Your task to perform on an android device: turn off location history Image 0: 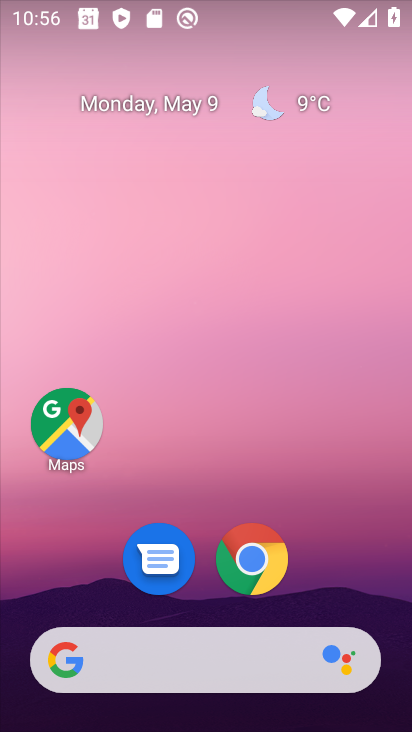
Step 0: drag from (385, 542) to (302, 152)
Your task to perform on an android device: turn off location history Image 1: 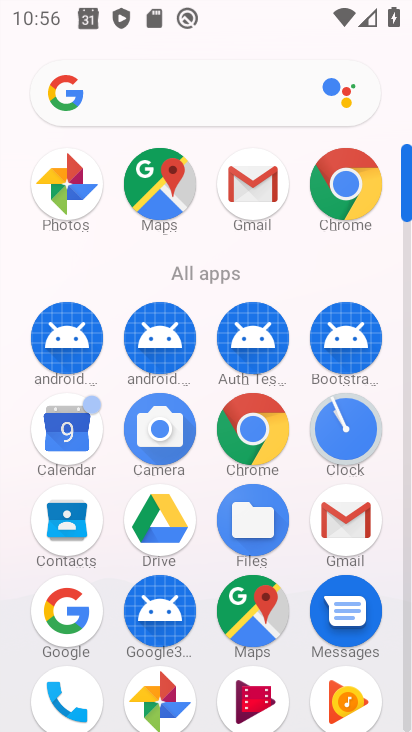
Step 1: drag from (398, 582) to (332, 187)
Your task to perform on an android device: turn off location history Image 2: 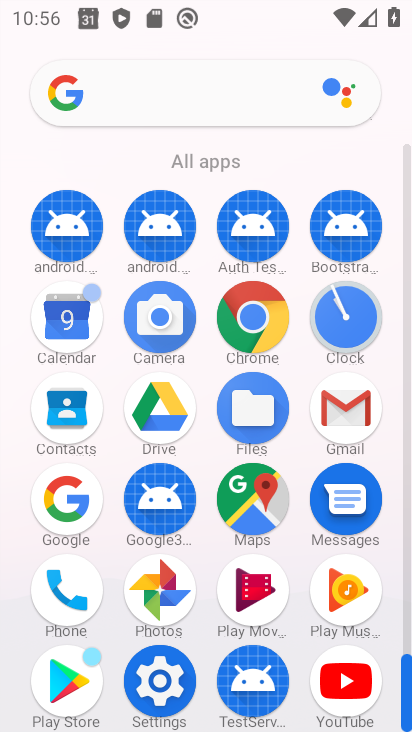
Step 2: click (157, 676)
Your task to perform on an android device: turn off location history Image 3: 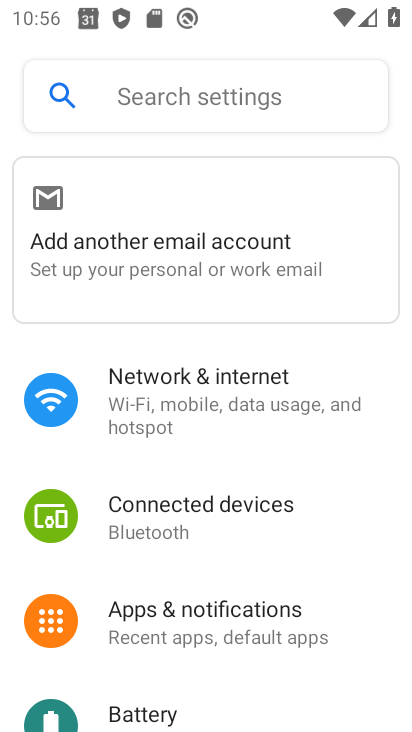
Step 3: drag from (313, 615) to (284, 228)
Your task to perform on an android device: turn off location history Image 4: 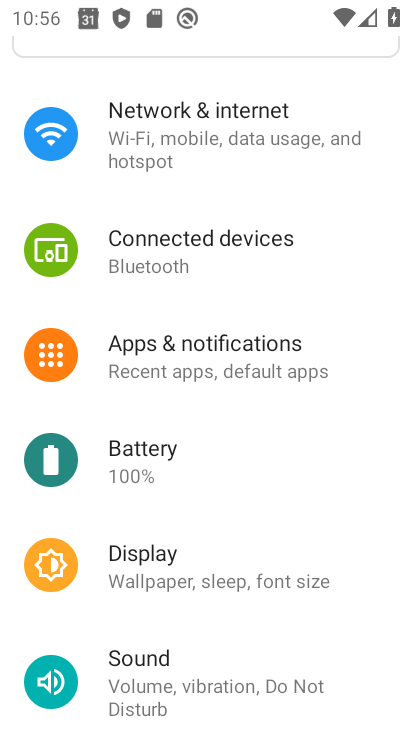
Step 4: drag from (211, 658) to (199, 190)
Your task to perform on an android device: turn off location history Image 5: 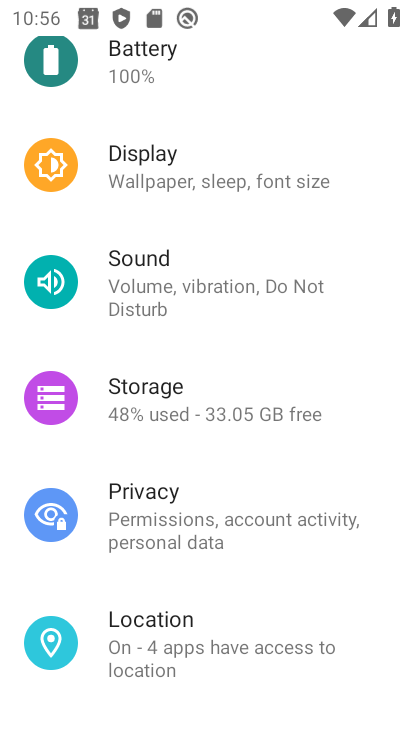
Step 5: click (189, 630)
Your task to perform on an android device: turn off location history Image 6: 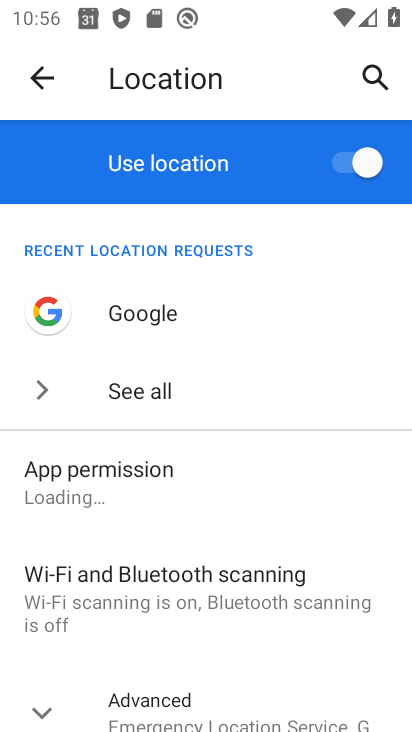
Step 6: drag from (273, 645) to (279, 216)
Your task to perform on an android device: turn off location history Image 7: 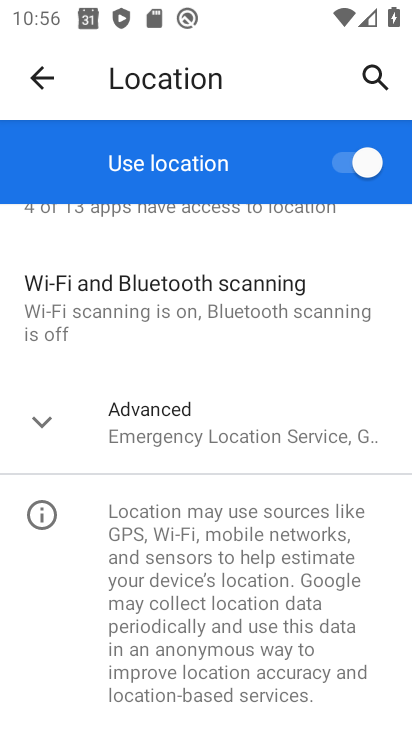
Step 7: drag from (189, 396) to (253, 725)
Your task to perform on an android device: turn off location history Image 8: 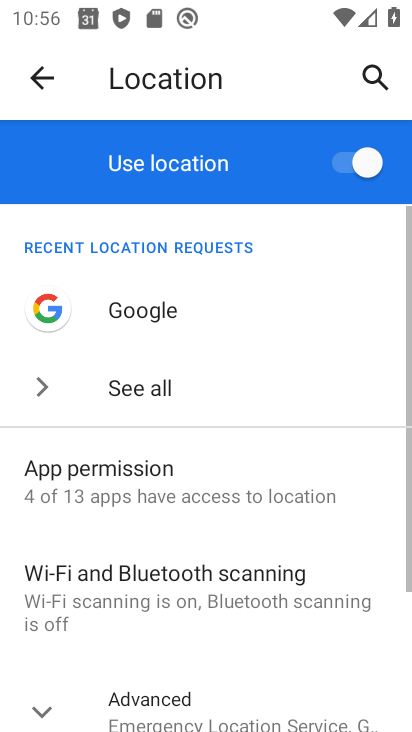
Step 8: drag from (195, 630) to (222, 227)
Your task to perform on an android device: turn off location history Image 9: 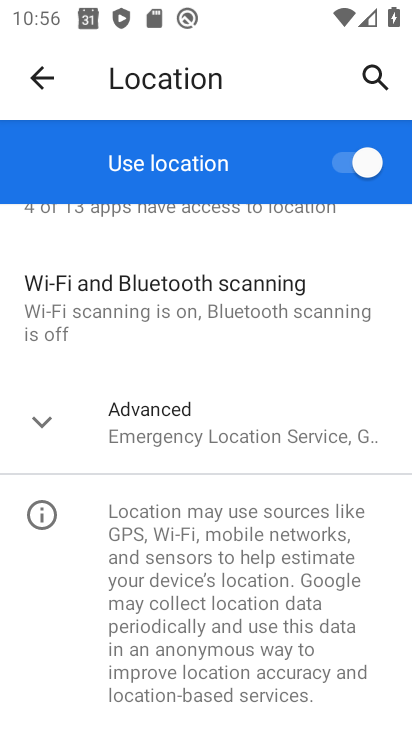
Step 9: drag from (205, 588) to (212, 322)
Your task to perform on an android device: turn off location history Image 10: 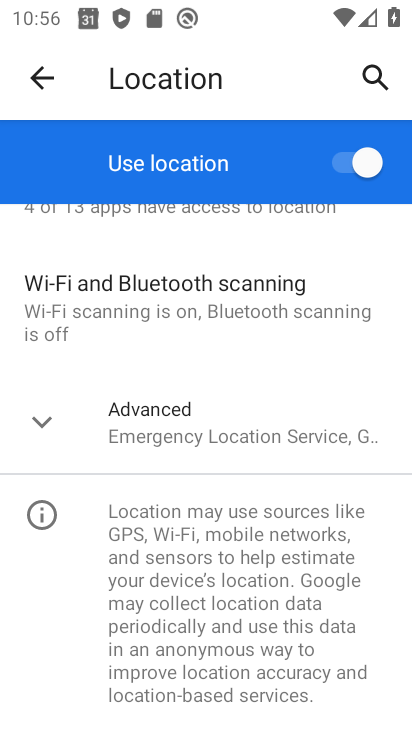
Step 10: click (198, 418)
Your task to perform on an android device: turn off location history Image 11: 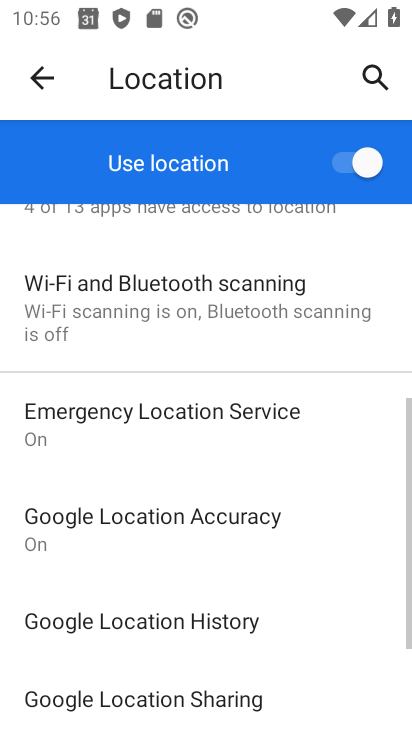
Step 11: drag from (175, 575) to (190, 301)
Your task to perform on an android device: turn off location history Image 12: 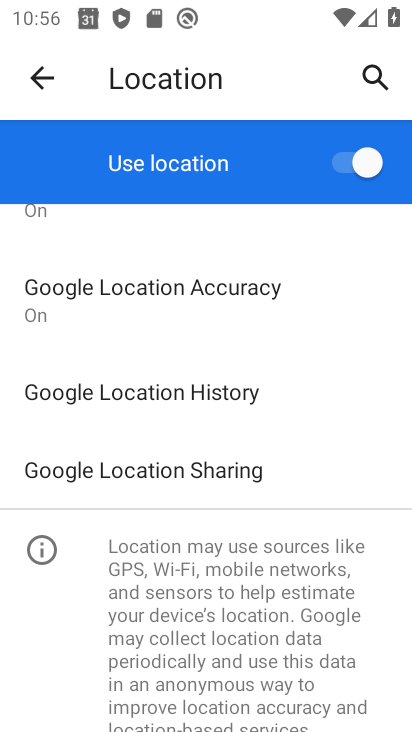
Step 12: click (166, 401)
Your task to perform on an android device: turn off location history Image 13: 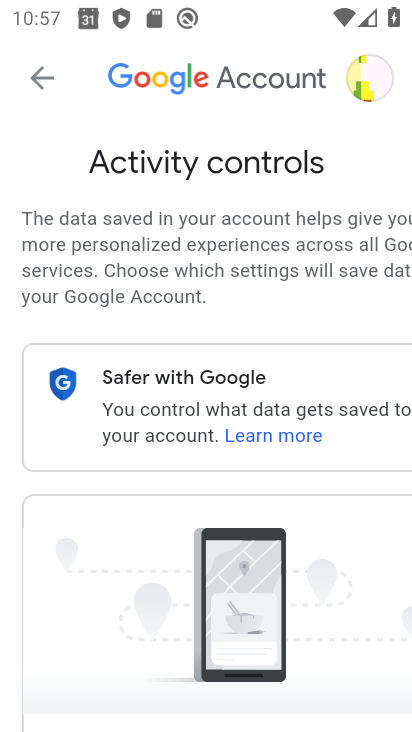
Step 13: task complete